Your task to perform on an android device: open a new tab in the chrome app Image 0: 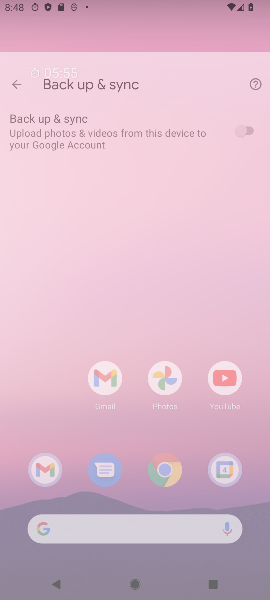
Step 0: press home button
Your task to perform on an android device: open a new tab in the chrome app Image 1: 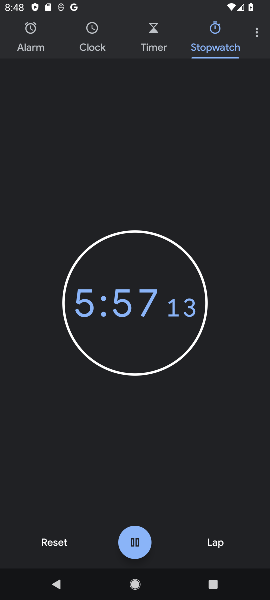
Step 1: drag from (188, 501) to (181, 259)
Your task to perform on an android device: open a new tab in the chrome app Image 2: 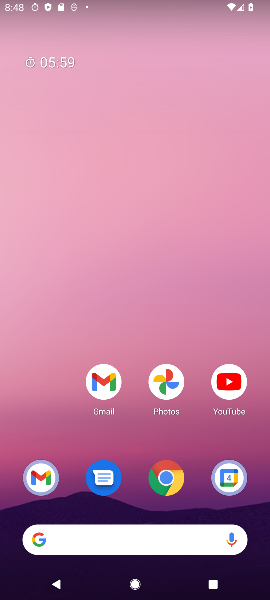
Step 2: click (160, 485)
Your task to perform on an android device: open a new tab in the chrome app Image 3: 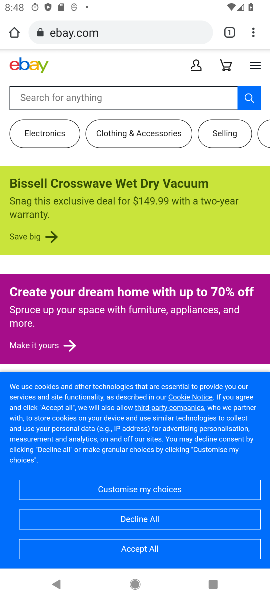
Step 3: task complete